Your task to perform on an android device: manage bookmarks in the chrome app Image 0: 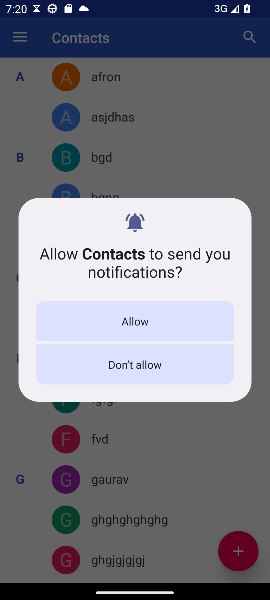
Step 0: press home button
Your task to perform on an android device: manage bookmarks in the chrome app Image 1: 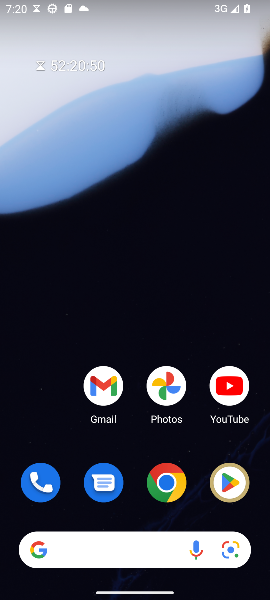
Step 1: drag from (117, 476) to (175, 52)
Your task to perform on an android device: manage bookmarks in the chrome app Image 2: 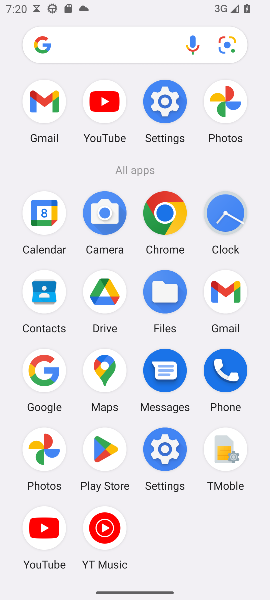
Step 2: click (171, 212)
Your task to perform on an android device: manage bookmarks in the chrome app Image 3: 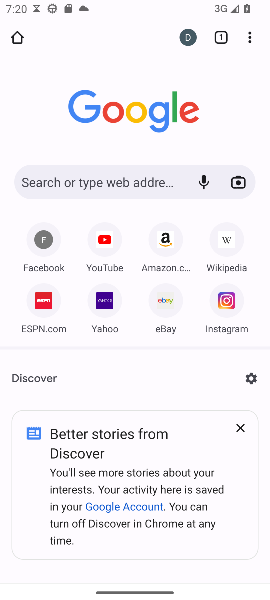
Step 3: drag from (250, 31) to (138, 279)
Your task to perform on an android device: manage bookmarks in the chrome app Image 4: 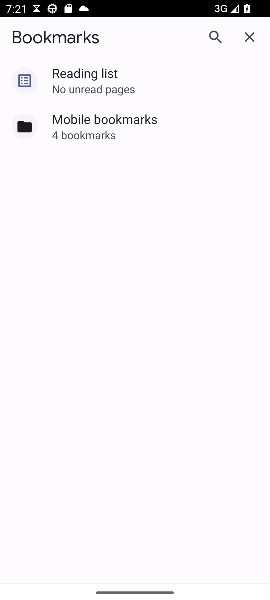
Step 4: click (99, 87)
Your task to perform on an android device: manage bookmarks in the chrome app Image 5: 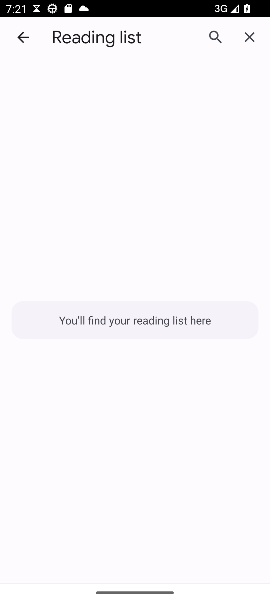
Step 5: click (22, 38)
Your task to perform on an android device: manage bookmarks in the chrome app Image 6: 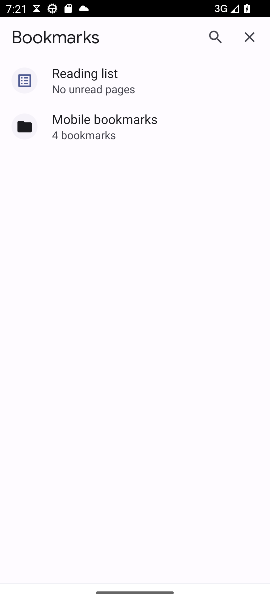
Step 6: click (36, 125)
Your task to perform on an android device: manage bookmarks in the chrome app Image 7: 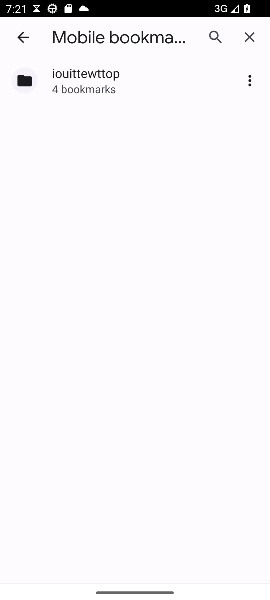
Step 7: click (66, 91)
Your task to perform on an android device: manage bookmarks in the chrome app Image 8: 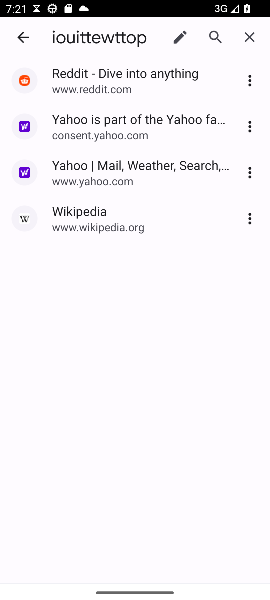
Step 8: click (250, 79)
Your task to perform on an android device: manage bookmarks in the chrome app Image 9: 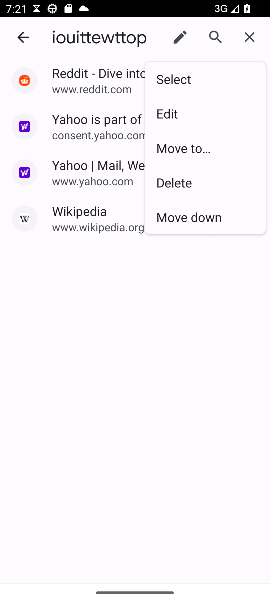
Step 9: click (182, 184)
Your task to perform on an android device: manage bookmarks in the chrome app Image 10: 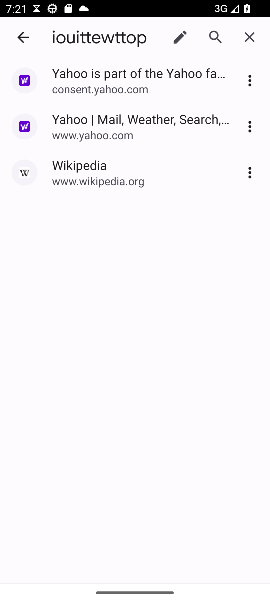
Step 10: task complete